Your task to perform on an android device: Do I have any events this weekend? Image 0: 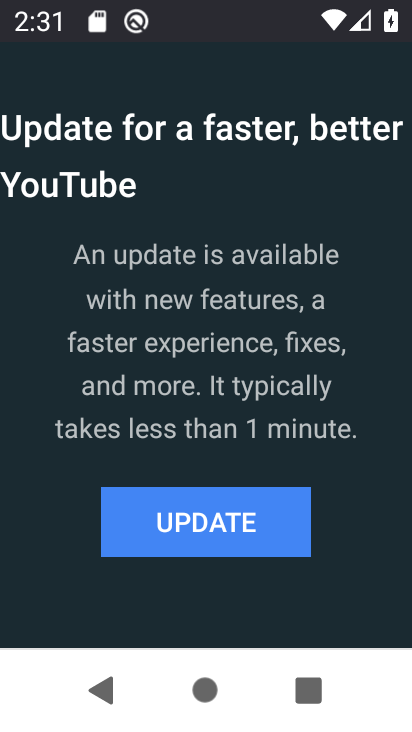
Step 0: press home button
Your task to perform on an android device: Do I have any events this weekend? Image 1: 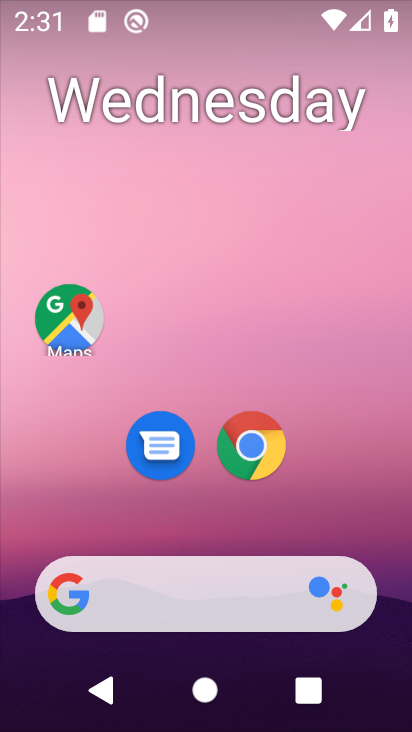
Step 1: drag from (379, 542) to (407, 23)
Your task to perform on an android device: Do I have any events this weekend? Image 2: 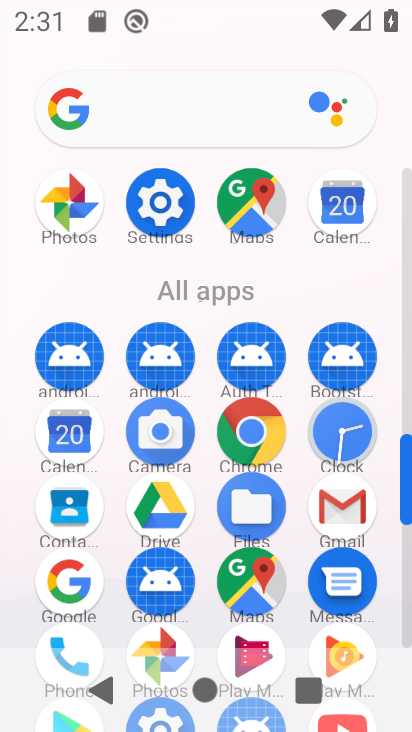
Step 2: click (342, 207)
Your task to perform on an android device: Do I have any events this weekend? Image 3: 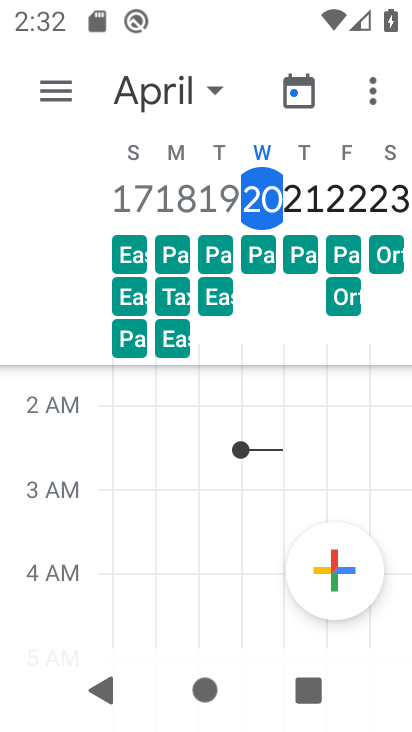
Step 3: click (217, 93)
Your task to perform on an android device: Do I have any events this weekend? Image 4: 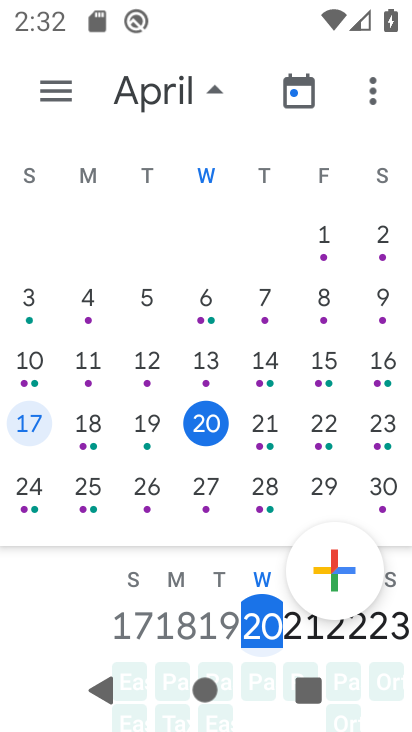
Step 4: click (271, 432)
Your task to perform on an android device: Do I have any events this weekend? Image 5: 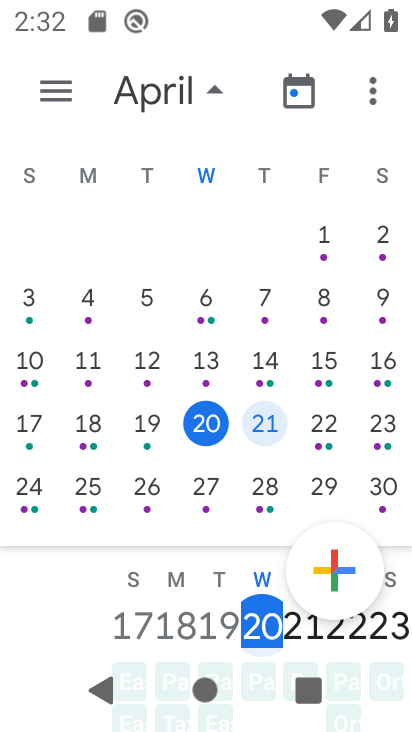
Step 5: click (48, 89)
Your task to perform on an android device: Do I have any events this weekend? Image 6: 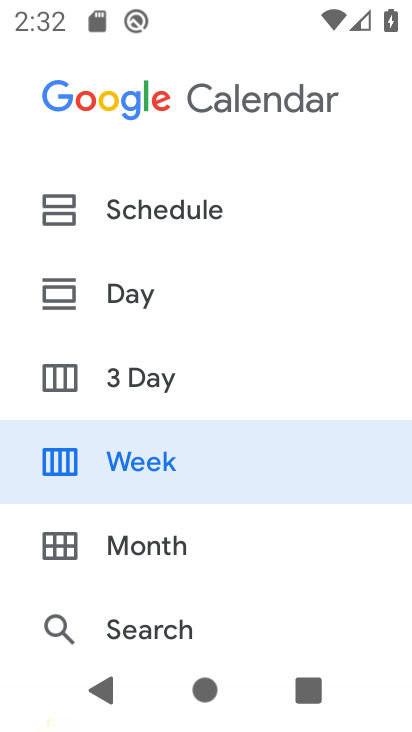
Step 6: click (109, 207)
Your task to perform on an android device: Do I have any events this weekend? Image 7: 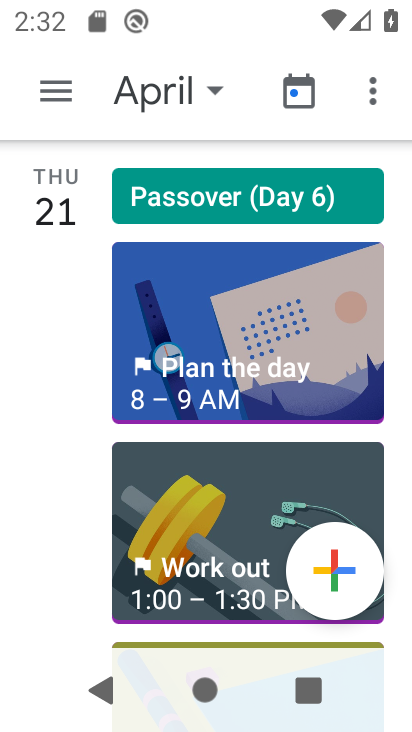
Step 7: drag from (231, 452) to (232, 297)
Your task to perform on an android device: Do I have any events this weekend? Image 8: 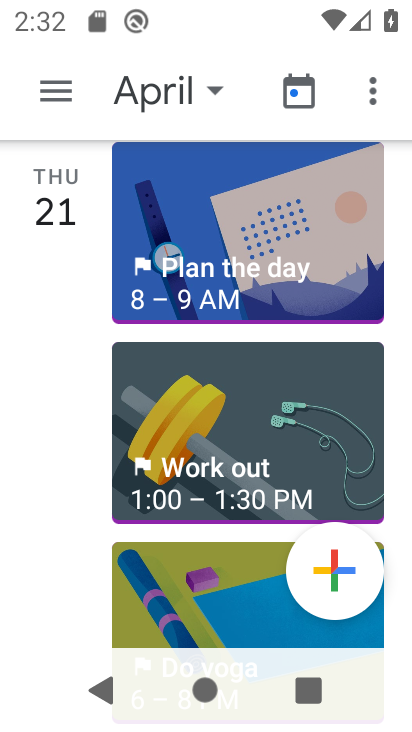
Step 8: drag from (218, 479) to (217, 226)
Your task to perform on an android device: Do I have any events this weekend? Image 9: 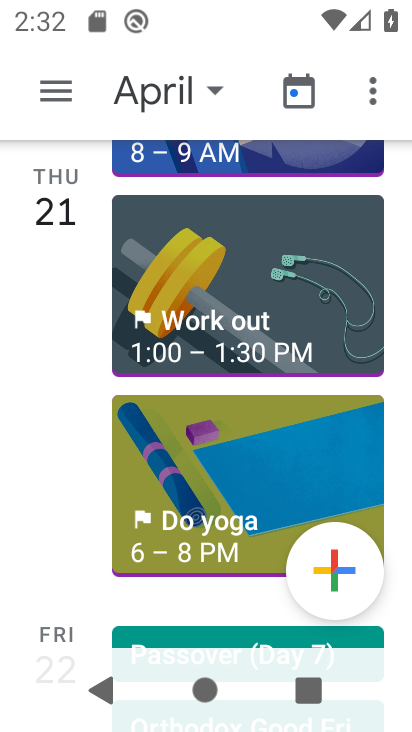
Step 9: click (217, 472)
Your task to perform on an android device: Do I have any events this weekend? Image 10: 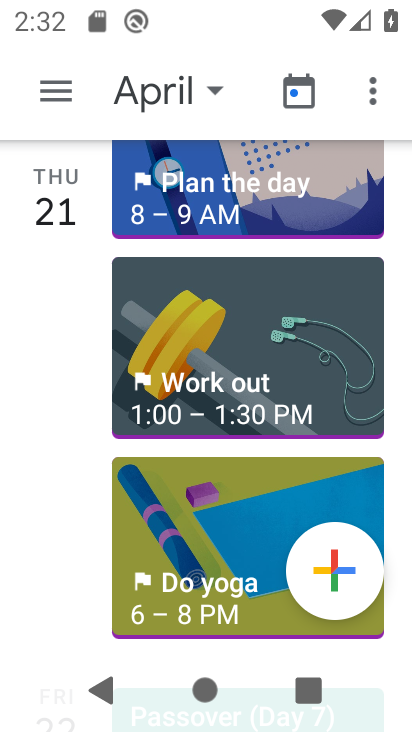
Step 10: click (217, 522)
Your task to perform on an android device: Do I have any events this weekend? Image 11: 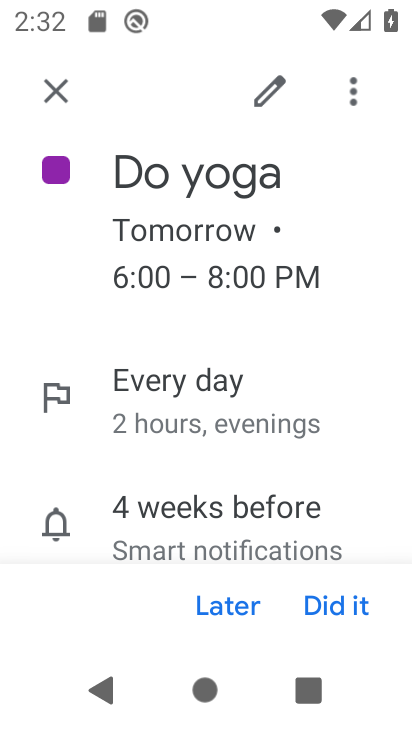
Step 11: click (57, 89)
Your task to perform on an android device: Do I have any events this weekend? Image 12: 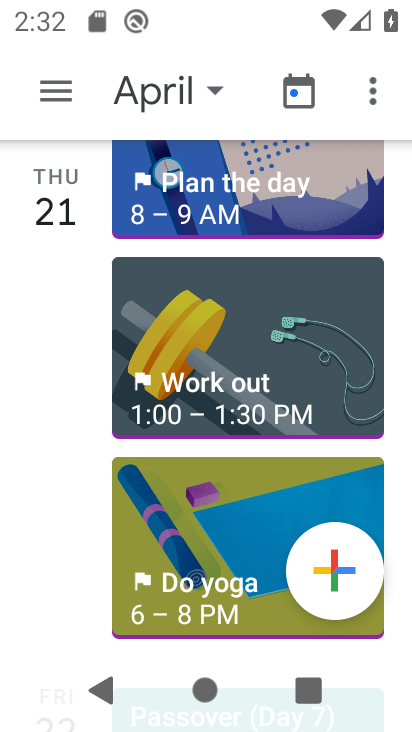
Step 12: drag from (145, 441) to (143, 36)
Your task to perform on an android device: Do I have any events this weekend? Image 13: 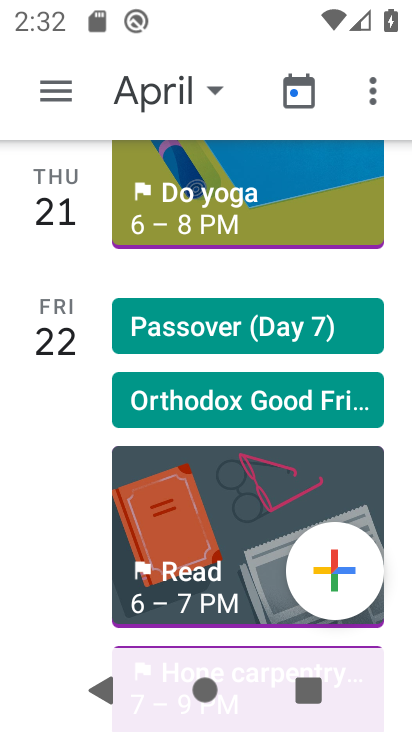
Step 13: drag from (149, 506) to (135, 107)
Your task to perform on an android device: Do I have any events this weekend? Image 14: 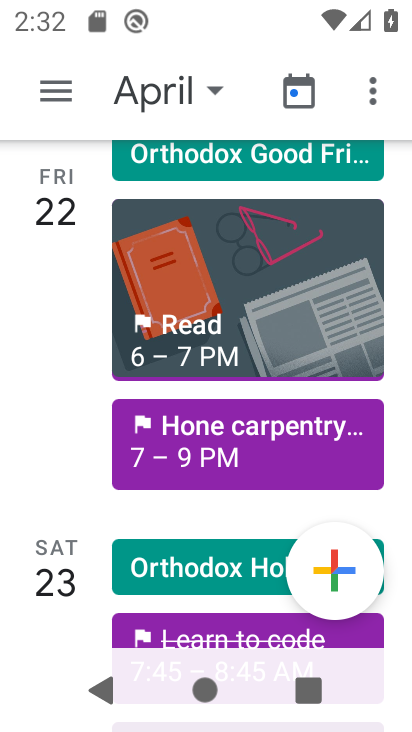
Step 14: drag from (187, 476) to (186, 238)
Your task to perform on an android device: Do I have any events this weekend? Image 15: 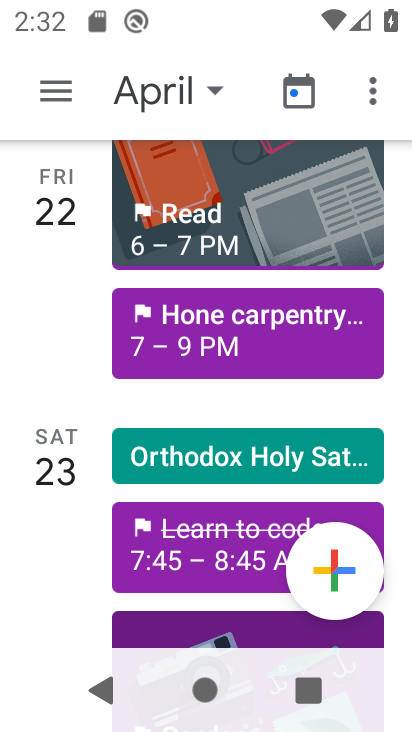
Step 15: drag from (178, 532) to (168, 172)
Your task to perform on an android device: Do I have any events this weekend? Image 16: 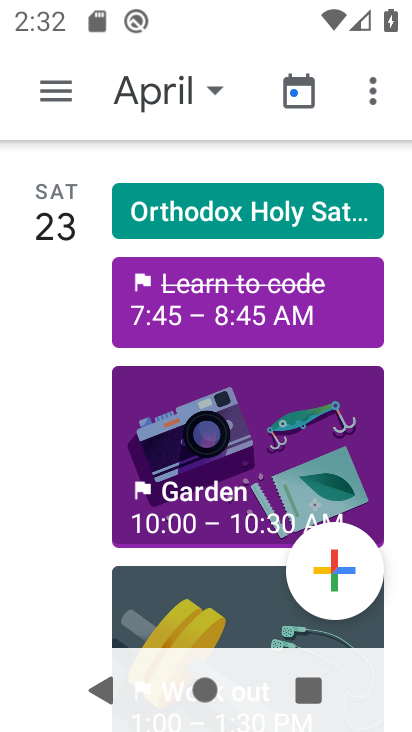
Step 16: click (204, 507)
Your task to perform on an android device: Do I have any events this weekend? Image 17: 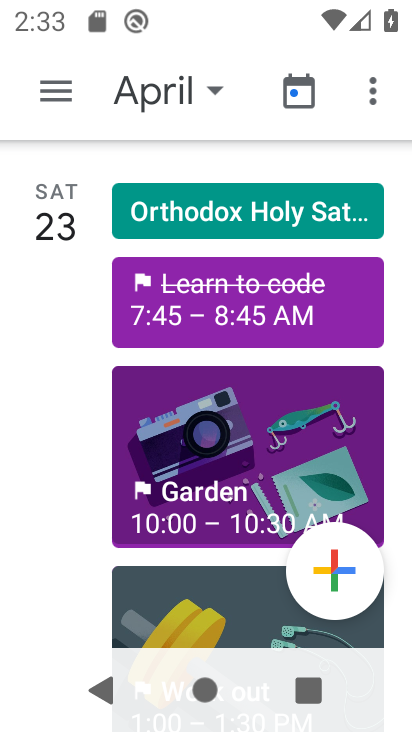
Step 17: click (238, 473)
Your task to perform on an android device: Do I have any events this weekend? Image 18: 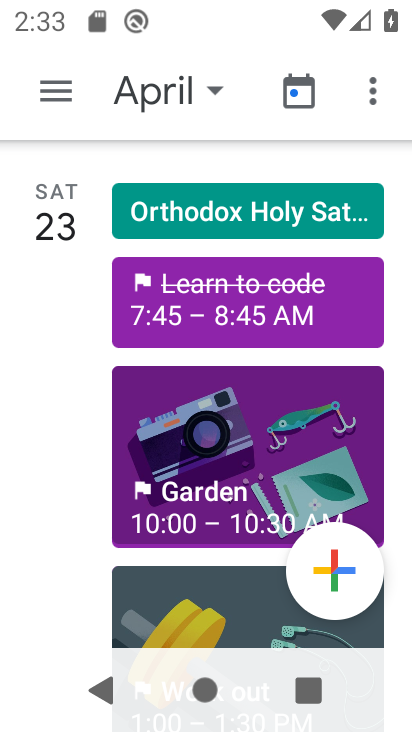
Step 18: click (222, 441)
Your task to perform on an android device: Do I have any events this weekend? Image 19: 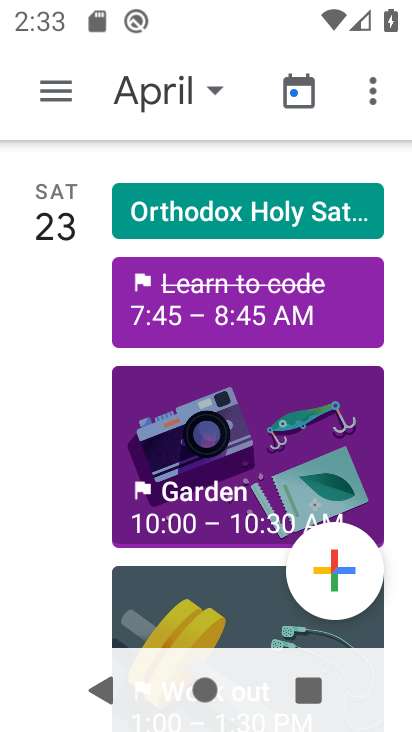
Step 19: click (223, 474)
Your task to perform on an android device: Do I have any events this weekend? Image 20: 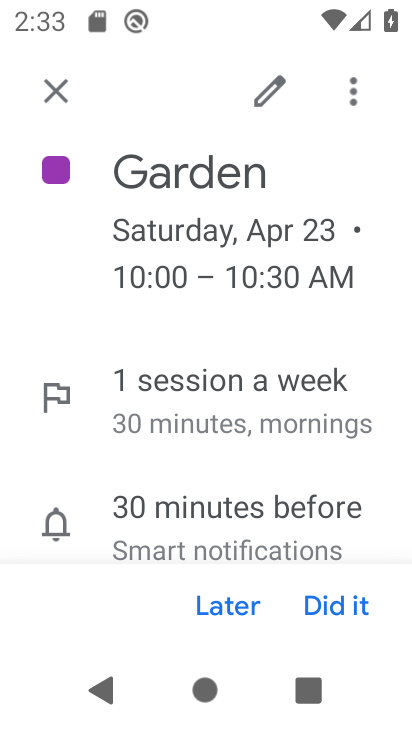
Step 20: task complete